Your task to perform on an android device: toggle data saver in the chrome app Image 0: 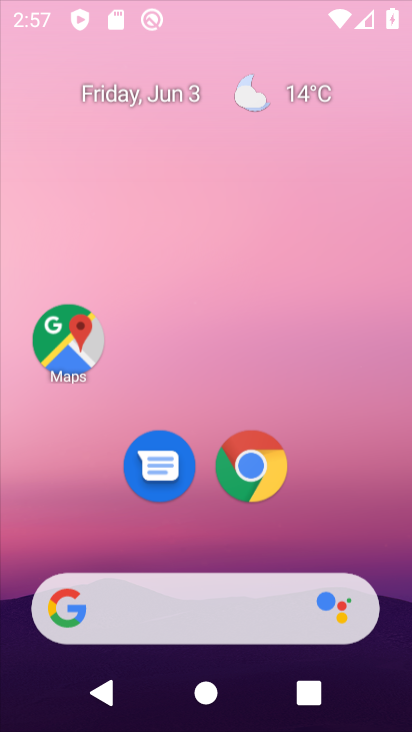
Step 0: click (232, 4)
Your task to perform on an android device: toggle data saver in the chrome app Image 1: 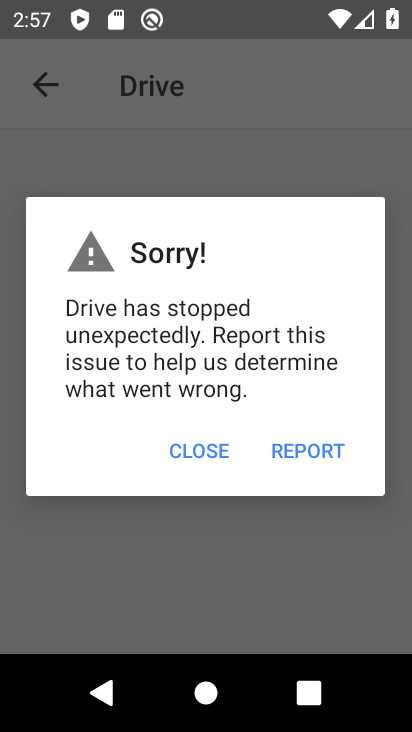
Step 1: press home button
Your task to perform on an android device: toggle data saver in the chrome app Image 2: 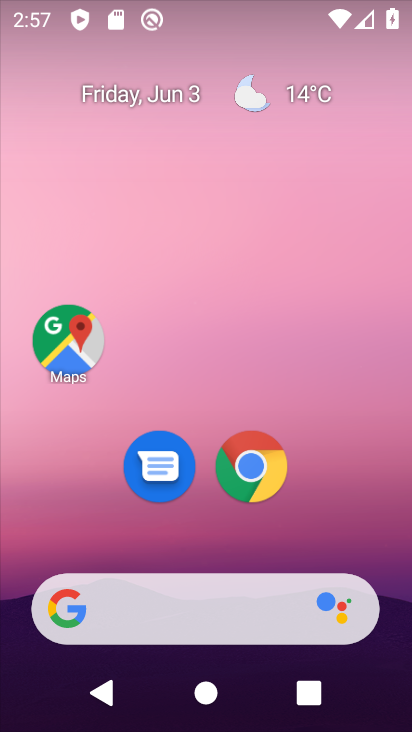
Step 2: click (246, 459)
Your task to perform on an android device: toggle data saver in the chrome app Image 3: 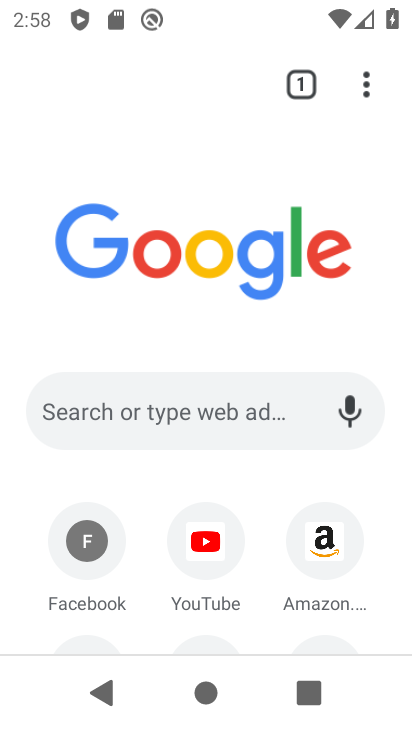
Step 3: click (369, 84)
Your task to perform on an android device: toggle data saver in the chrome app Image 4: 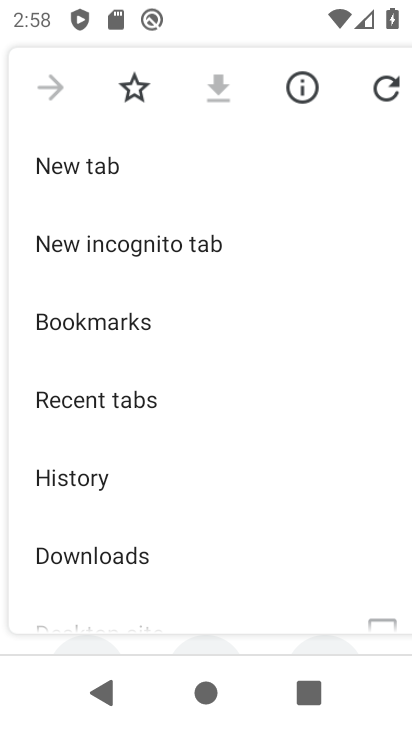
Step 4: drag from (186, 557) to (242, 51)
Your task to perform on an android device: toggle data saver in the chrome app Image 5: 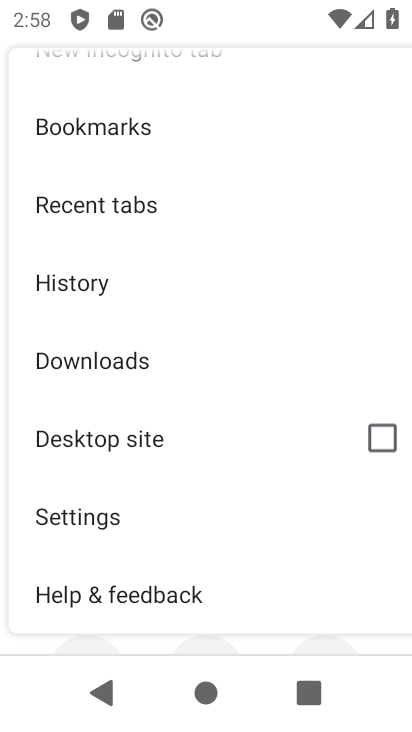
Step 5: click (143, 522)
Your task to perform on an android device: toggle data saver in the chrome app Image 6: 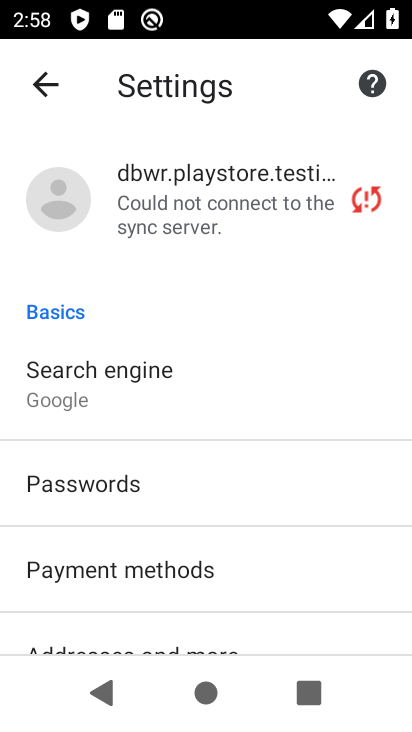
Step 6: drag from (287, 587) to (319, 198)
Your task to perform on an android device: toggle data saver in the chrome app Image 7: 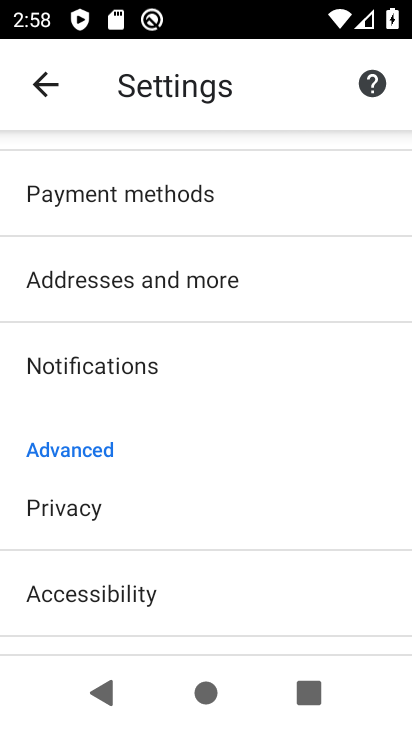
Step 7: drag from (213, 605) to (279, 123)
Your task to perform on an android device: toggle data saver in the chrome app Image 8: 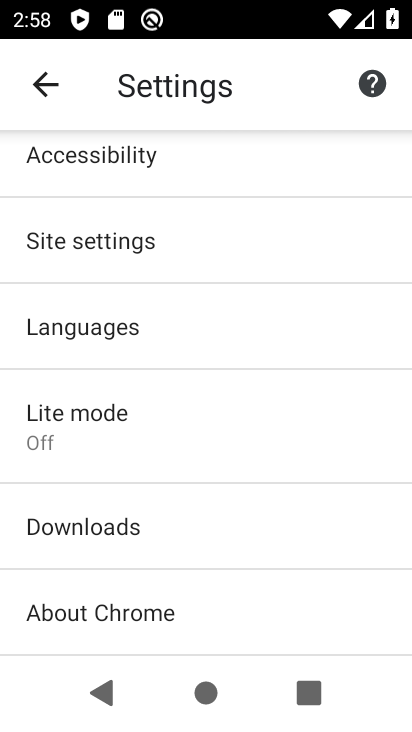
Step 8: click (161, 426)
Your task to perform on an android device: toggle data saver in the chrome app Image 9: 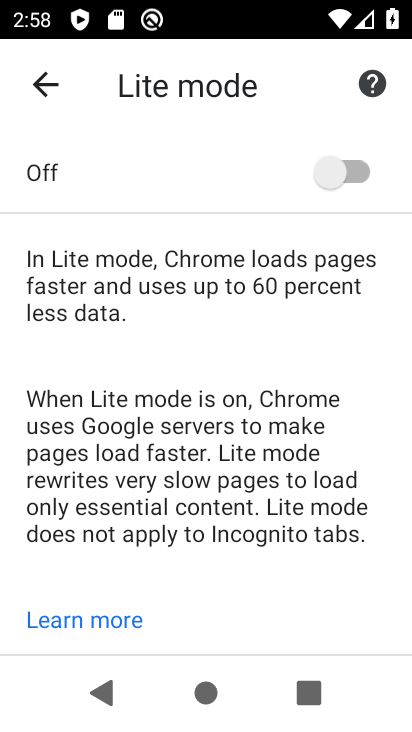
Step 9: click (345, 169)
Your task to perform on an android device: toggle data saver in the chrome app Image 10: 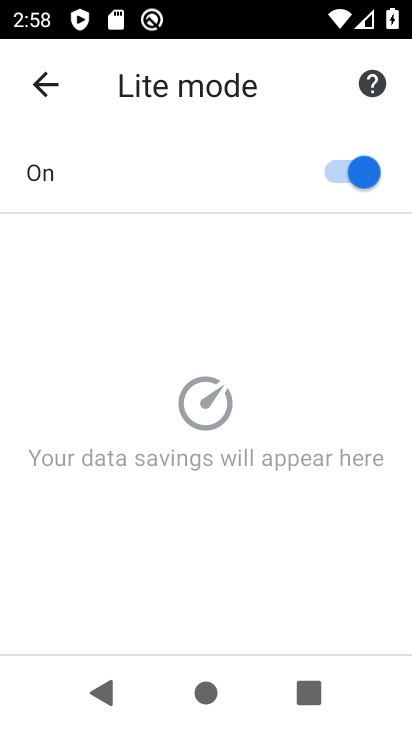
Step 10: task complete